Your task to perform on an android device: Open Google Image 0: 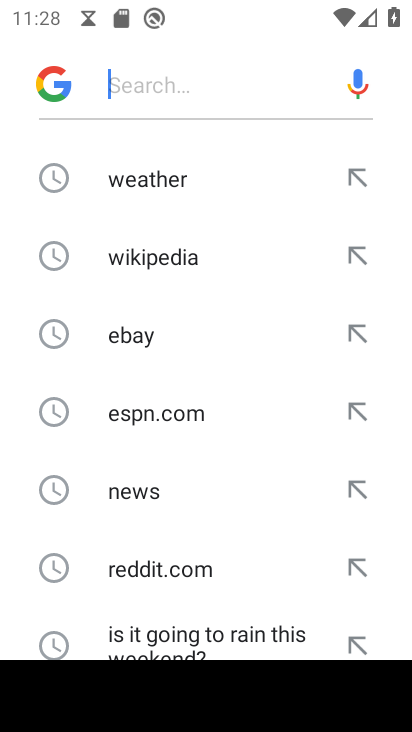
Step 0: press home button
Your task to perform on an android device: Open Google Image 1: 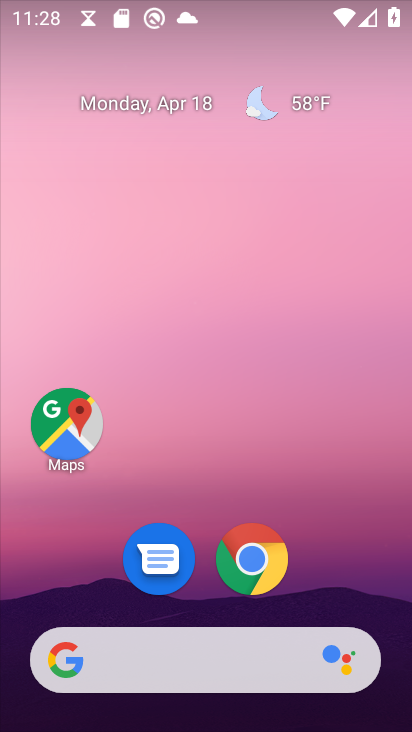
Step 1: drag from (304, 559) to (270, 101)
Your task to perform on an android device: Open Google Image 2: 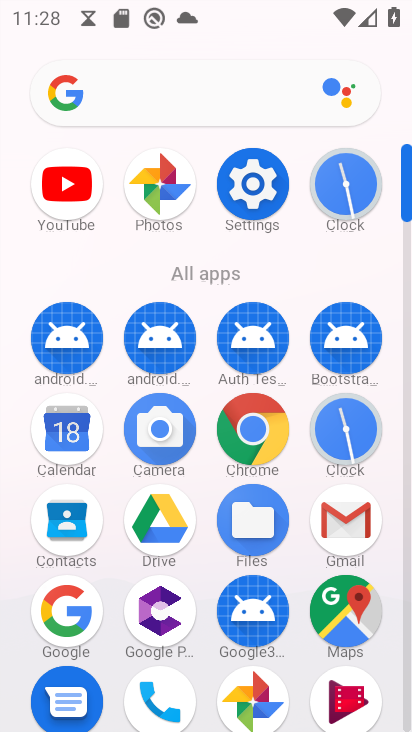
Step 2: click (61, 602)
Your task to perform on an android device: Open Google Image 3: 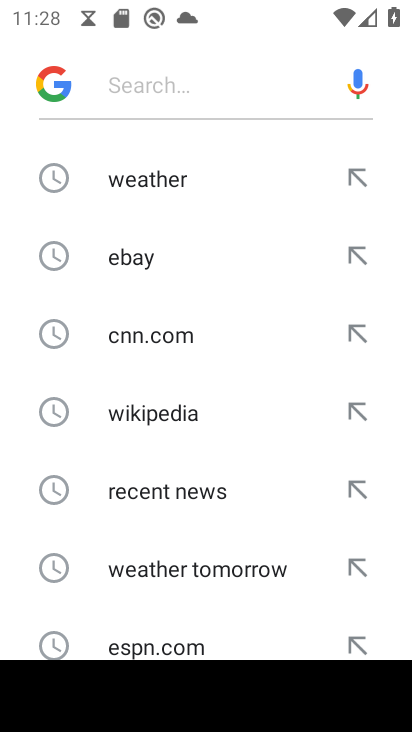
Step 3: task complete